Your task to perform on an android device: turn on location history Image 0: 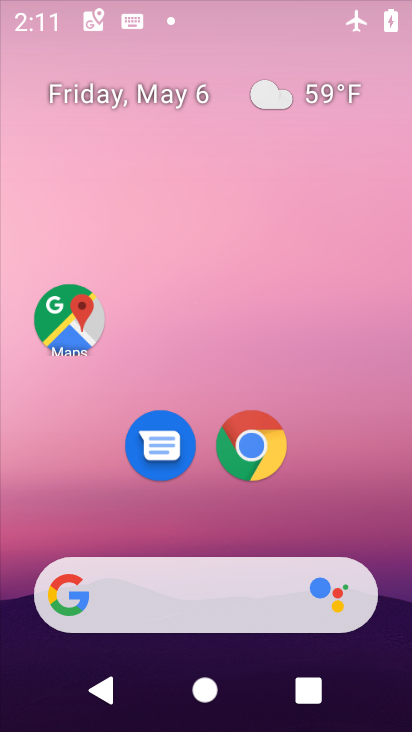
Step 0: drag from (270, 702) to (148, 143)
Your task to perform on an android device: turn on location history Image 1: 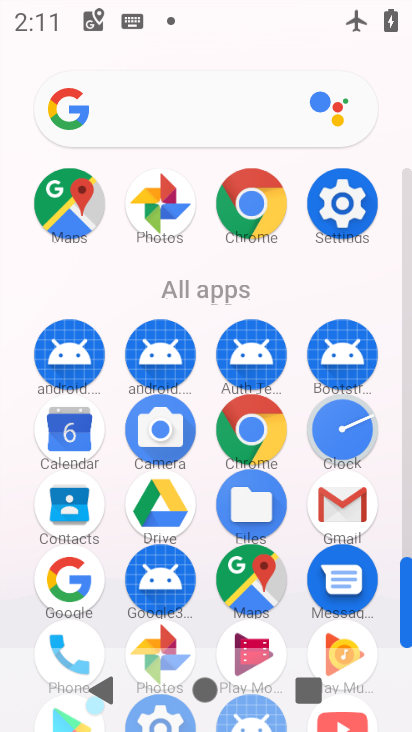
Step 1: click (240, 579)
Your task to perform on an android device: turn on location history Image 2: 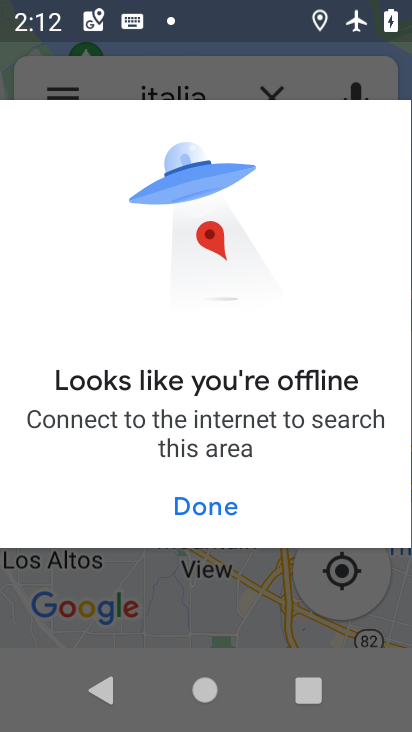
Step 2: task complete